Your task to perform on an android device: Search for sushi restaurants on Maps Image 0: 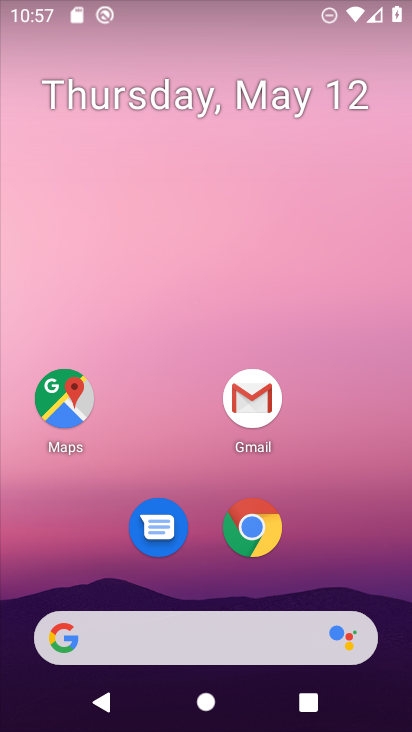
Step 0: click (61, 423)
Your task to perform on an android device: Search for sushi restaurants on Maps Image 1: 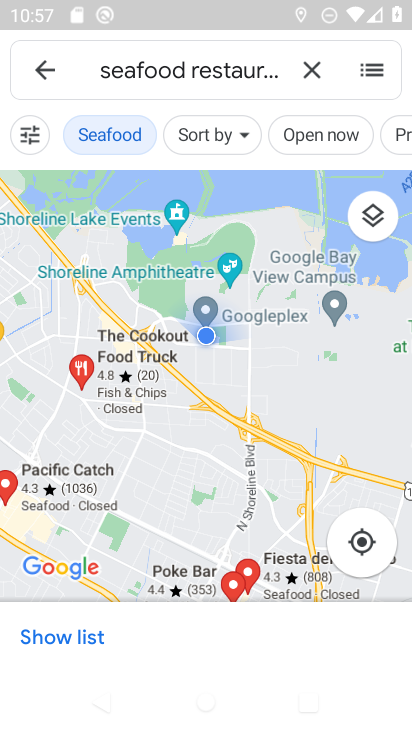
Step 1: click (308, 69)
Your task to perform on an android device: Search for sushi restaurants on Maps Image 2: 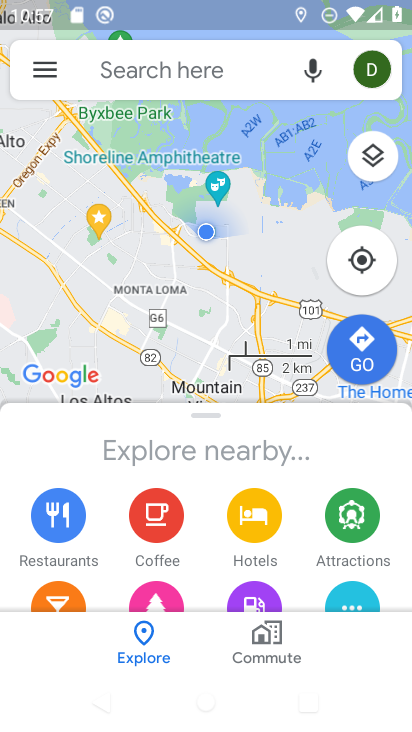
Step 2: click (220, 65)
Your task to perform on an android device: Search for sushi restaurants on Maps Image 3: 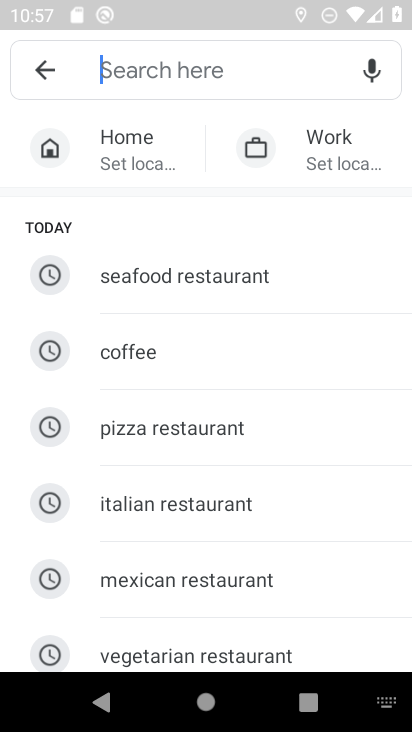
Step 3: drag from (193, 556) to (215, 328)
Your task to perform on an android device: Search for sushi restaurants on Maps Image 4: 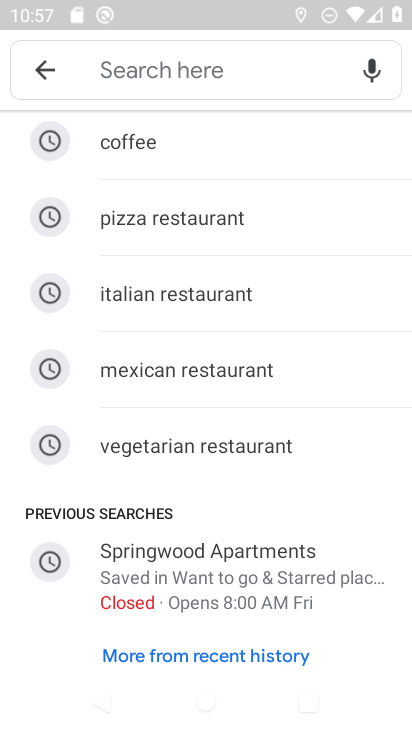
Step 4: click (249, 86)
Your task to perform on an android device: Search for sushi restaurants on Maps Image 5: 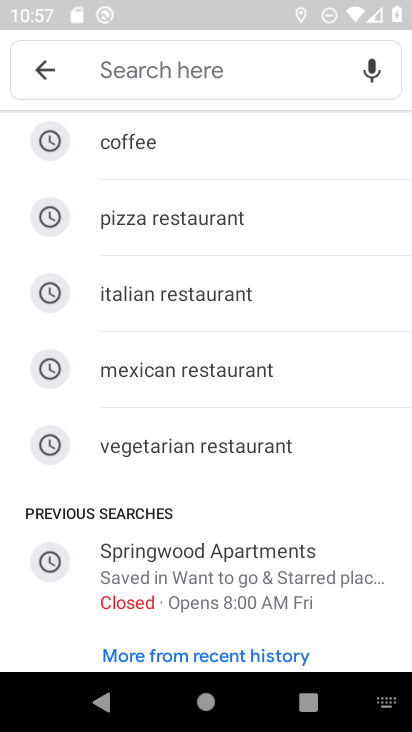
Step 5: click (241, 76)
Your task to perform on an android device: Search for sushi restaurants on Maps Image 6: 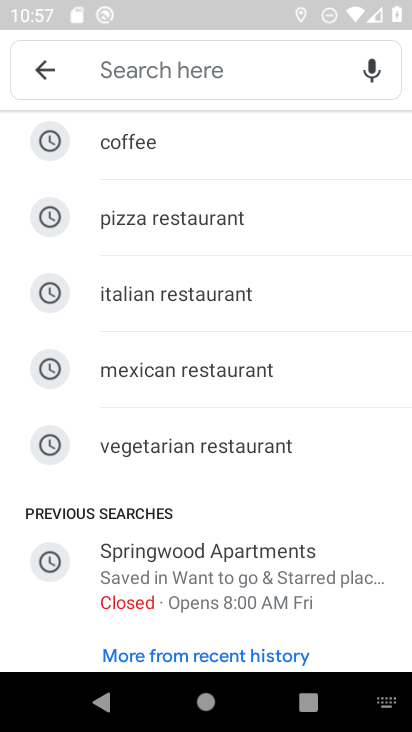
Step 6: type "sushi"
Your task to perform on an android device: Search for sushi restaurants on Maps Image 7: 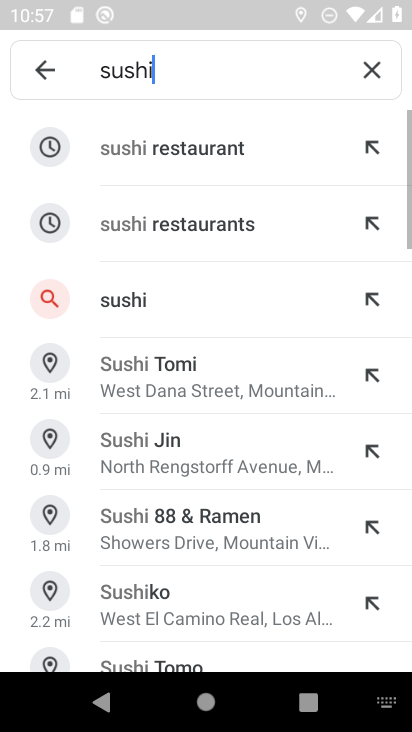
Step 7: click (227, 139)
Your task to perform on an android device: Search for sushi restaurants on Maps Image 8: 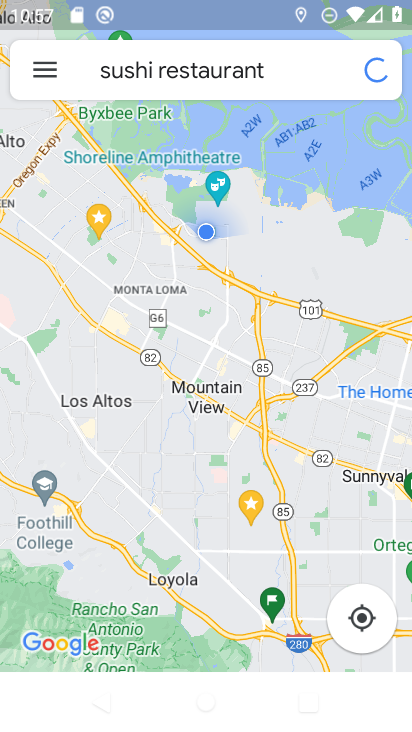
Step 8: task complete